Your task to perform on an android device: change notifications settings Image 0: 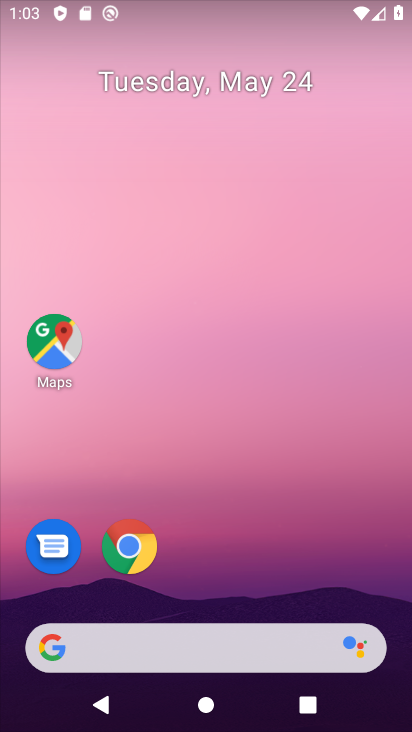
Step 0: click (202, 130)
Your task to perform on an android device: change notifications settings Image 1: 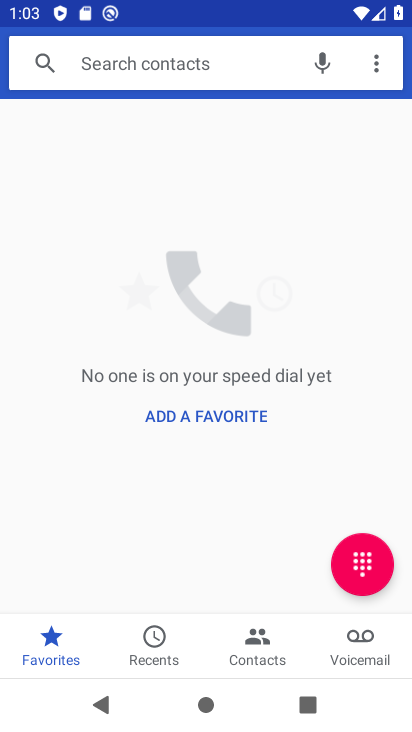
Step 1: drag from (258, 480) to (303, 184)
Your task to perform on an android device: change notifications settings Image 2: 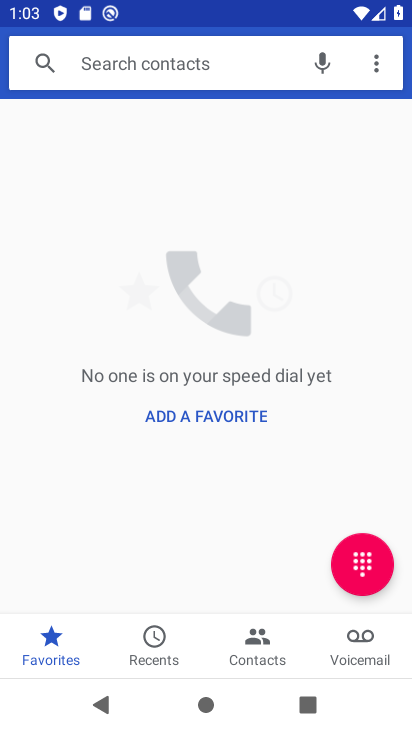
Step 2: press home button
Your task to perform on an android device: change notifications settings Image 3: 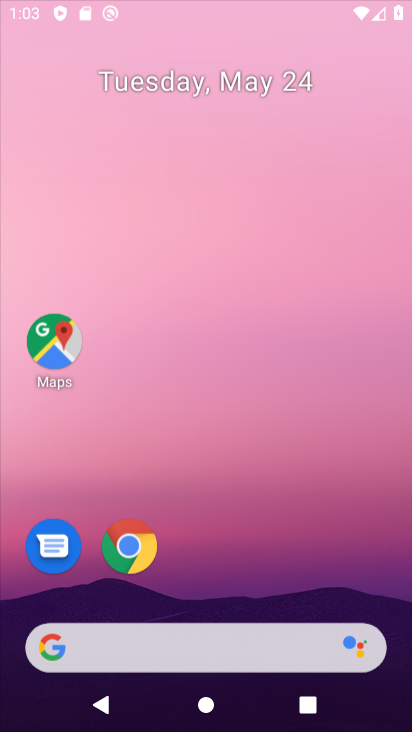
Step 3: drag from (194, 544) to (202, 14)
Your task to perform on an android device: change notifications settings Image 4: 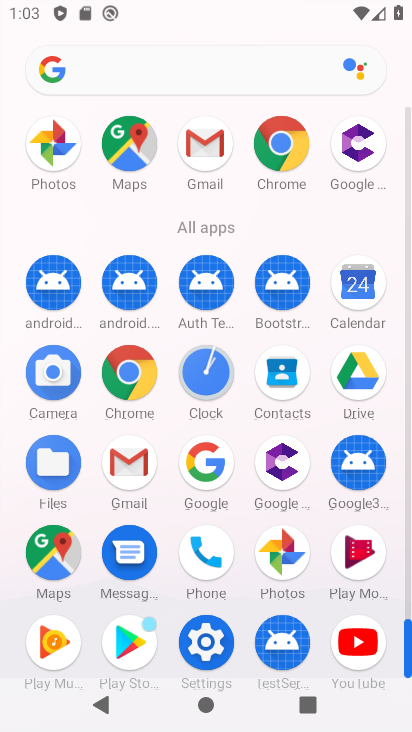
Step 4: click (215, 625)
Your task to perform on an android device: change notifications settings Image 5: 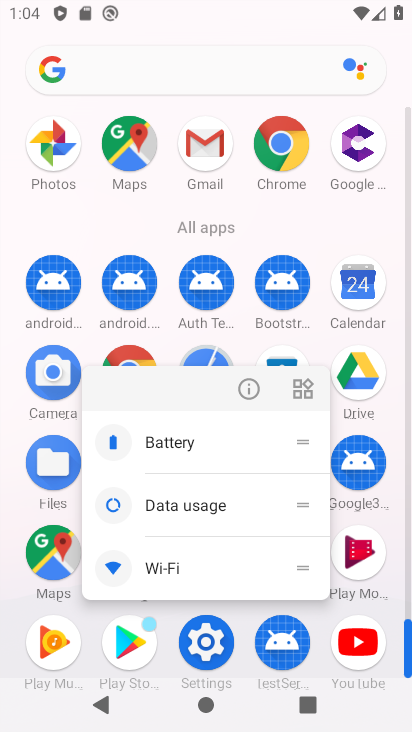
Step 5: click (249, 392)
Your task to perform on an android device: change notifications settings Image 6: 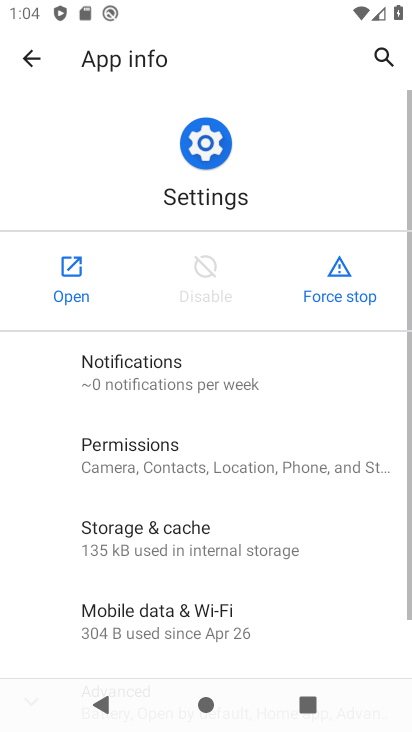
Step 6: click (68, 258)
Your task to perform on an android device: change notifications settings Image 7: 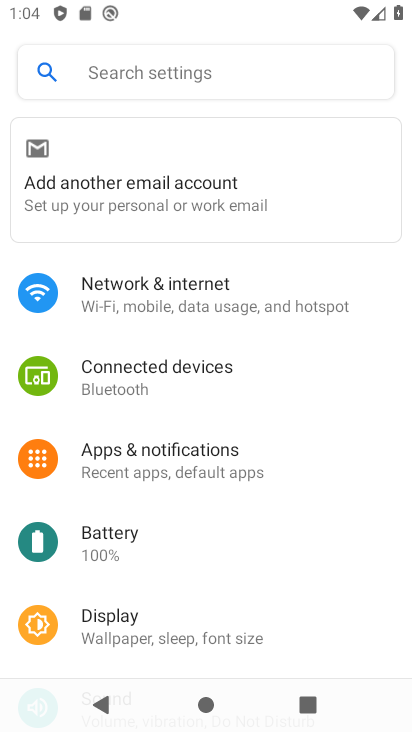
Step 7: drag from (172, 520) to (241, 223)
Your task to perform on an android device: change notifications settings Image 8: 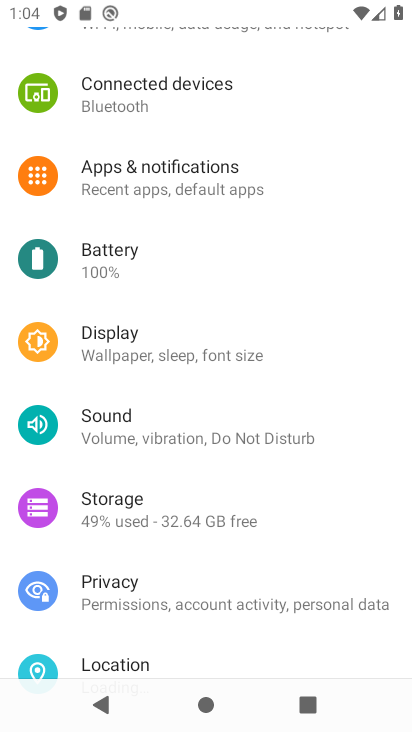
Step 8: click (195, 178)
Your task to perform on an android device: change notifications settings Image 9: 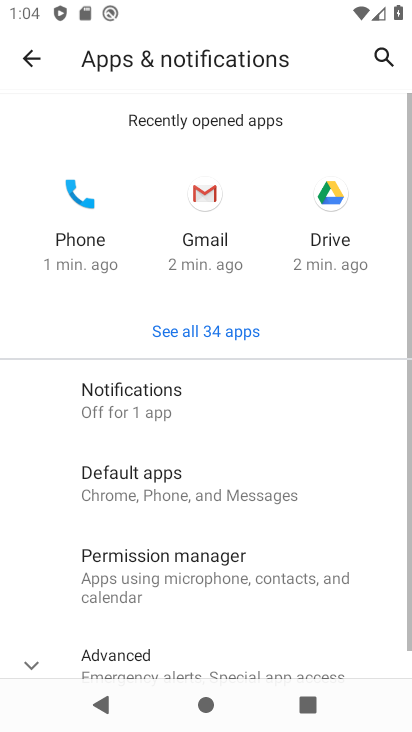
Step 9: click (144, 411)
Your task to perform on an android device: change notifications settings Image 10: 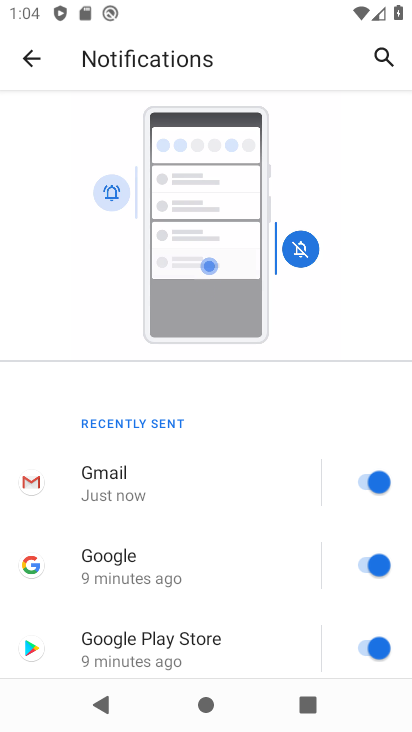
Step 10: drag from (233, 587) to (268, 143)
Your task to perform on an android device: change notifications settings Image 11: 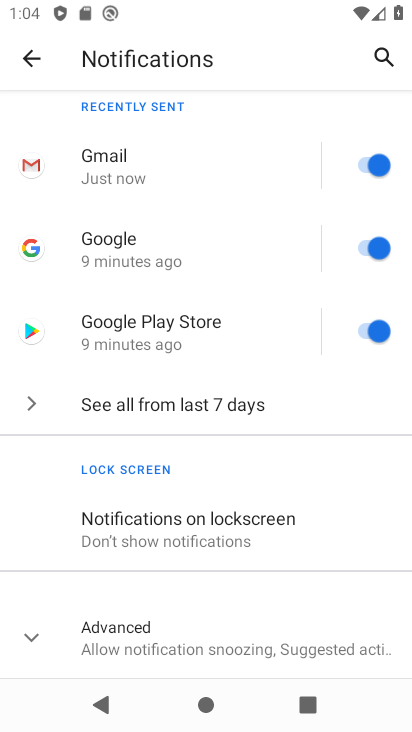
Step 11: drag from (201, 627) to (238, 299)
Your task to perform on an android device: change notifications settings Image 12: 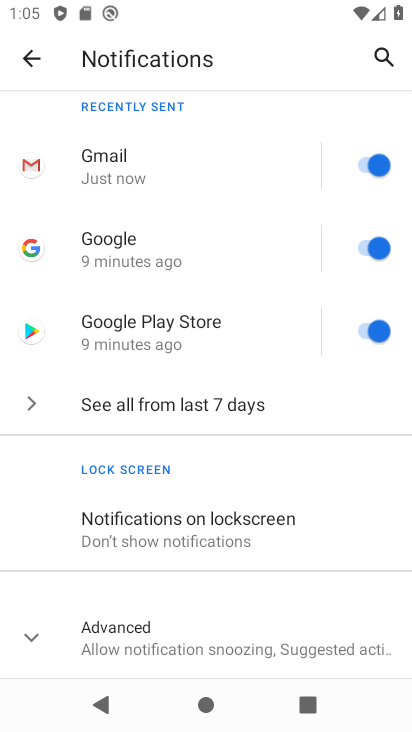
Step 12: click (168, 626)
Your task to perform on an android device: change notifications settings Image 13: 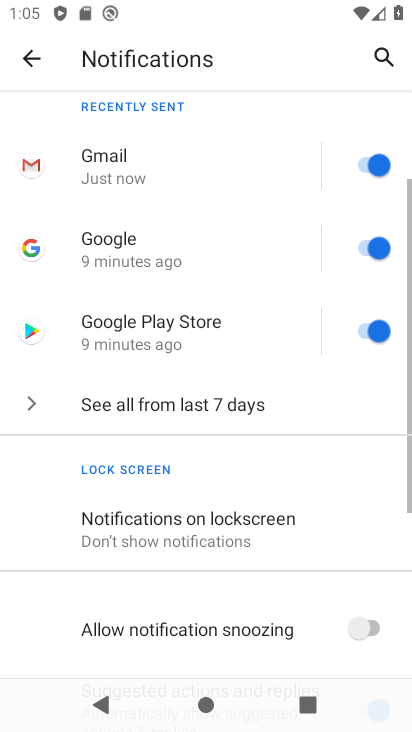
Step 13: drag from (174, 619) to (197, 82)
Your task to perform on an android device: change notifications settings Image 14: 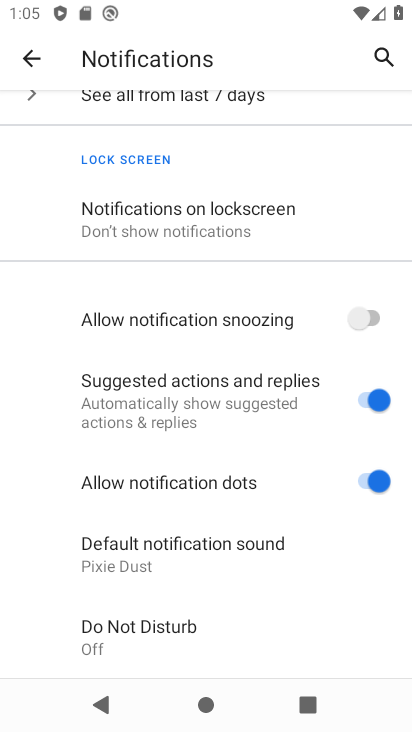
Step 14: drag from (216, 164) to (276, 586)
Your task to perform on an android device: change notifications settings Image 15: 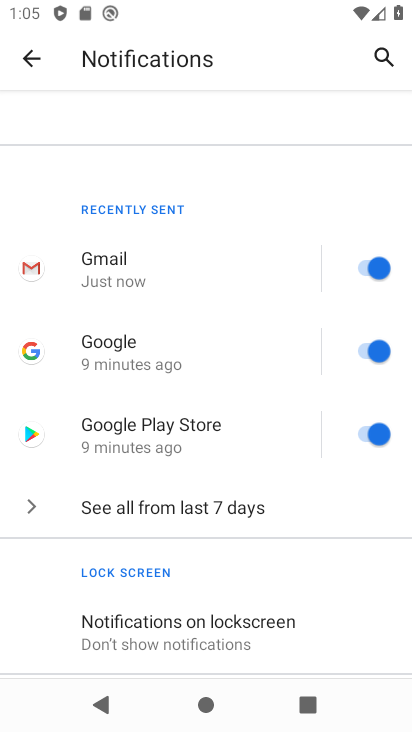
Step 15: click (366, 354)
Your task to perform on an android device: change notifications settings Image 16: 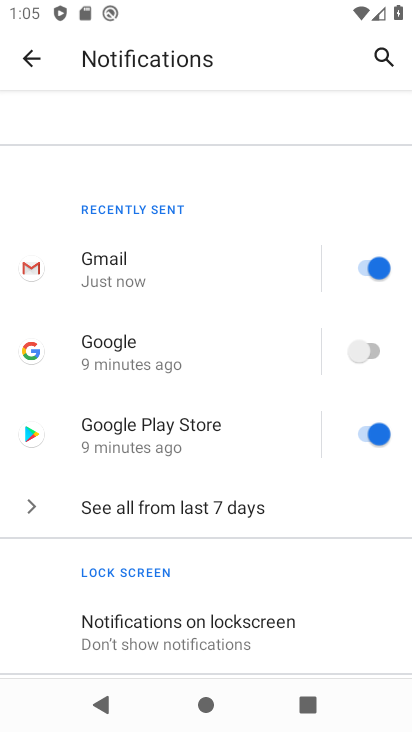
Step 16: task complete